Your task to perform on an android device: Open Yahoo.com Image 0: 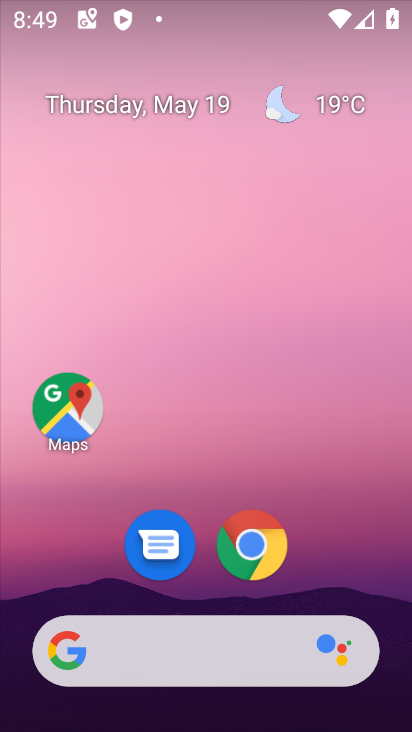
Step 0: click (283, 552)
Your task to perform on an android device: Open Yahoo.com Image 1: 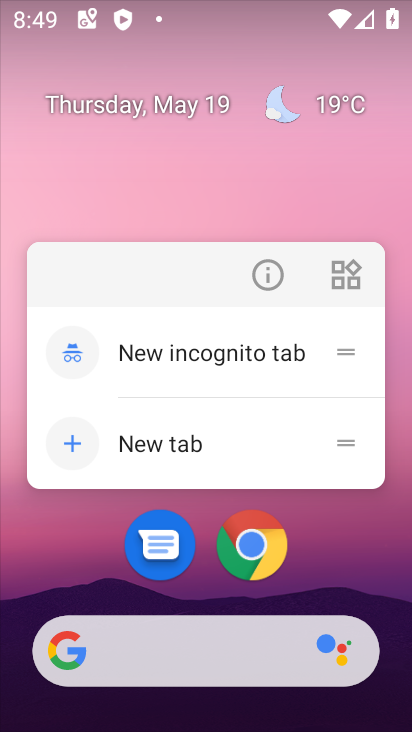
Step 1: click (283, 552)
Your task to perform on an android device: Open Yahoo.com Image 2: 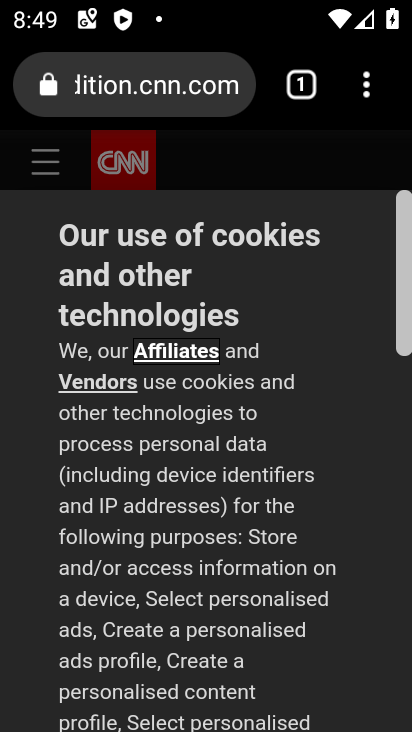
Step 2: click (200, 82)
Your task to perform on an android device: Open Yahoo.com Image 3: 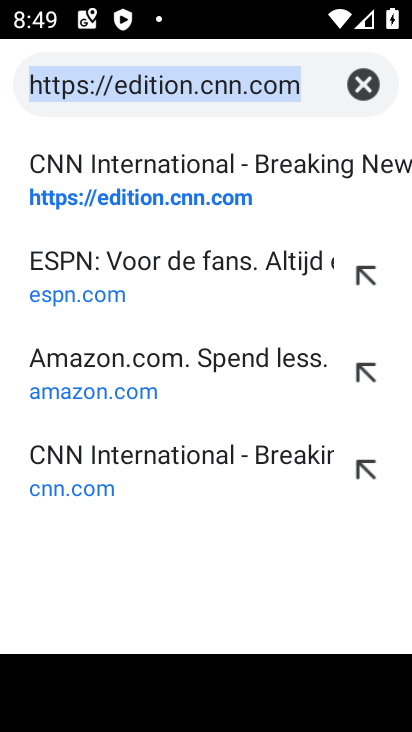
Step 3: type "yahoo.com"
Your task to perform on an android device: Open Yahoo.com Image 4: 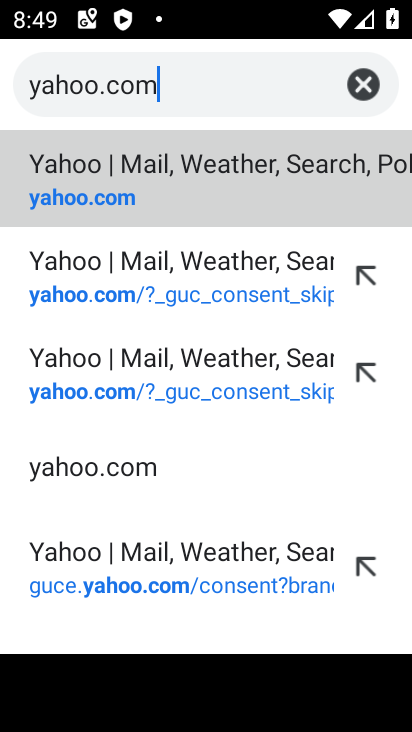
Step 4: click (218, 200)
Your task to perform on an android device: Open Yahoo.com Image 5: 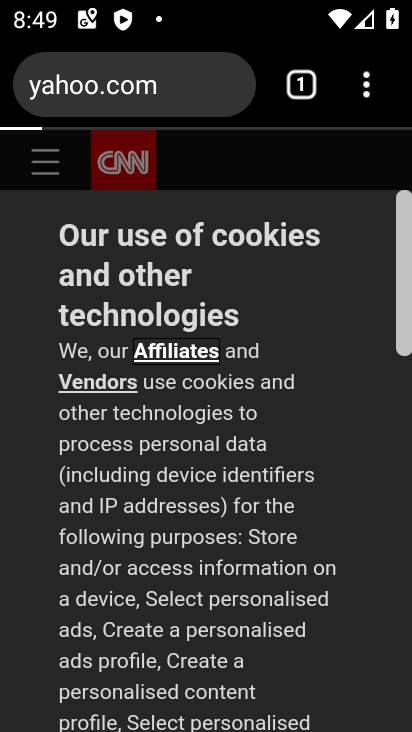
Step 5: task complete